Your task to perform on an android device: Go to Wikipedia Image 0: 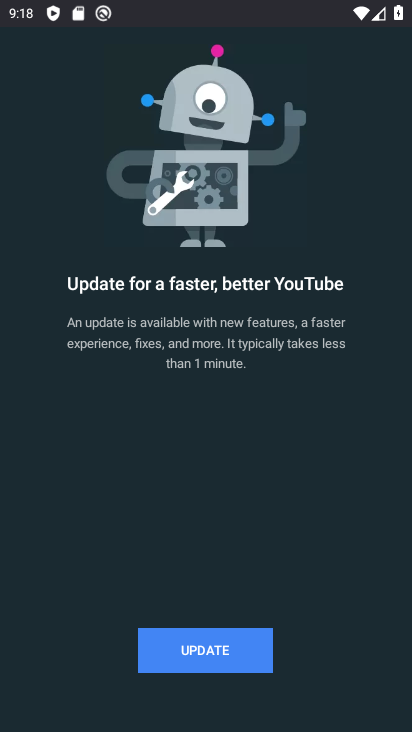
Step 0: press home button
Your task to perform on an android device: Go to Wikipedia Image 1: 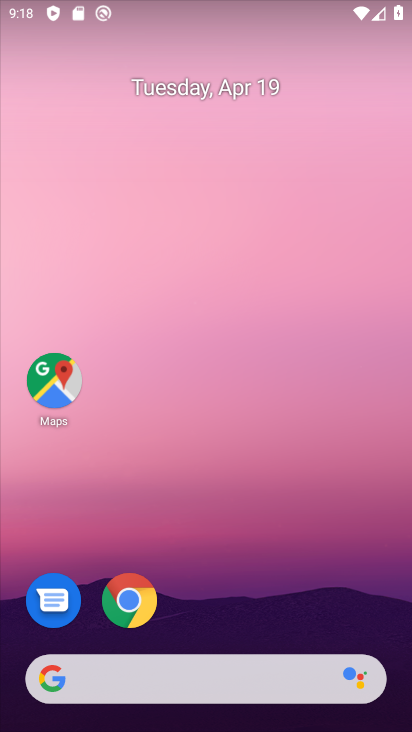
Step 1: click (130, 597)
Your task to perform on an android device: Go to Wikipedia Image 2: 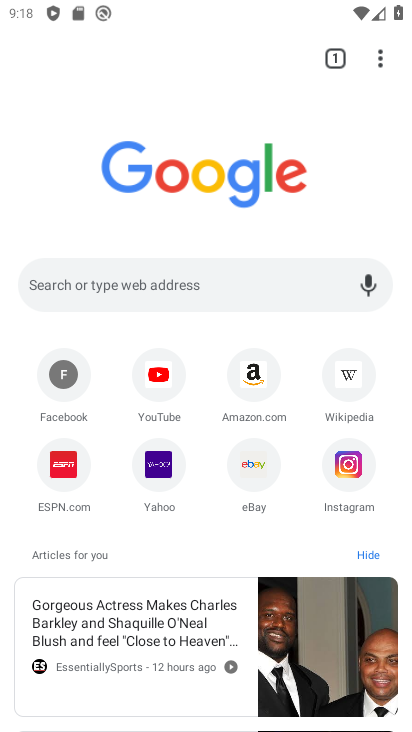
Step 2: click (353, 377)
Your task to perform on an android device: Go to Wikipedia Image 3: 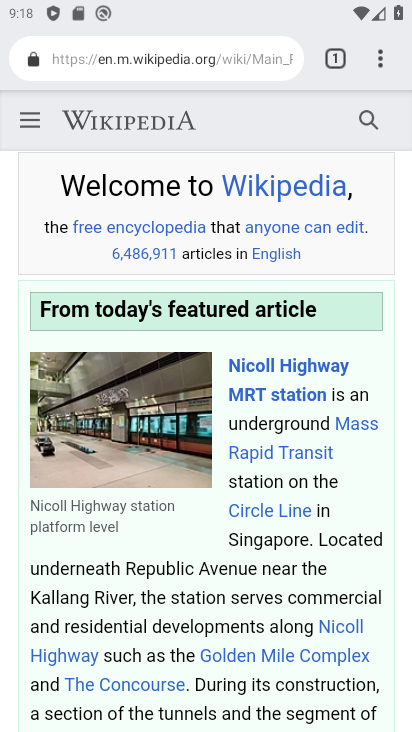
Step 3: task complete